Your task to perform on an android device: turn pop-ups on in chrome Image 0: 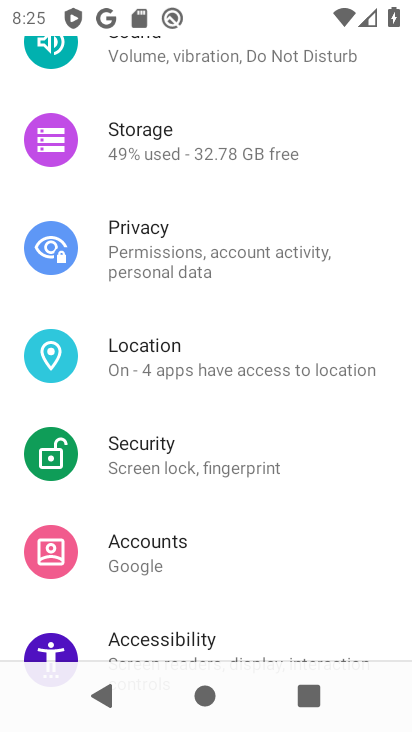
Step 0: press home button
Your task to perform on an android device: turn pop-ups on in chrome Image 1: 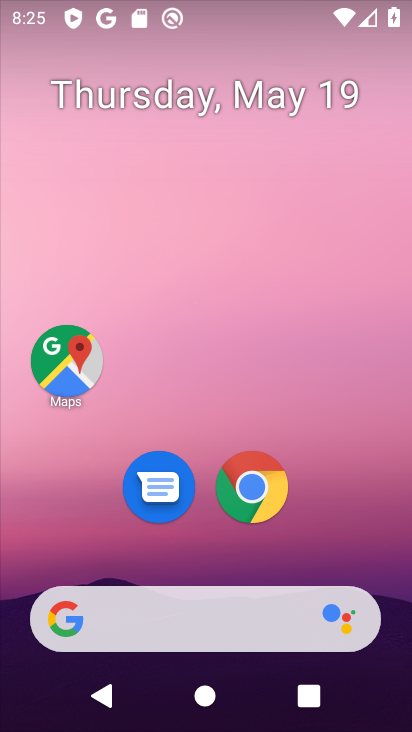
Step 1: click (246, 496)
Your task to perform on an android device: turn pop-ups on in chrome Image 2: 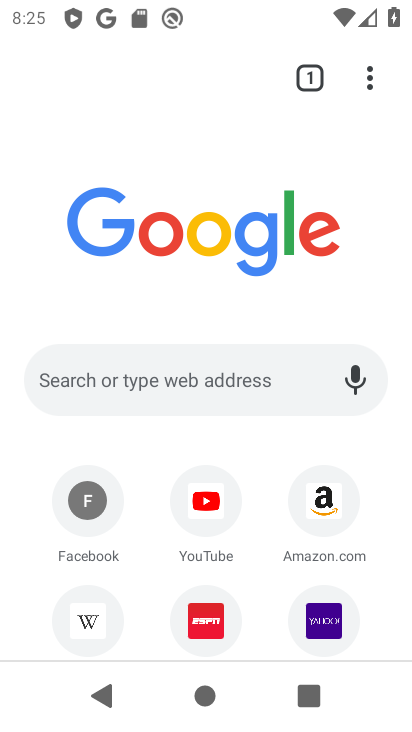
Step 2: drag from (367, 86) to (62, 551)
Your task to perform on an android device: turn pop-ups on in chrome Image 3: 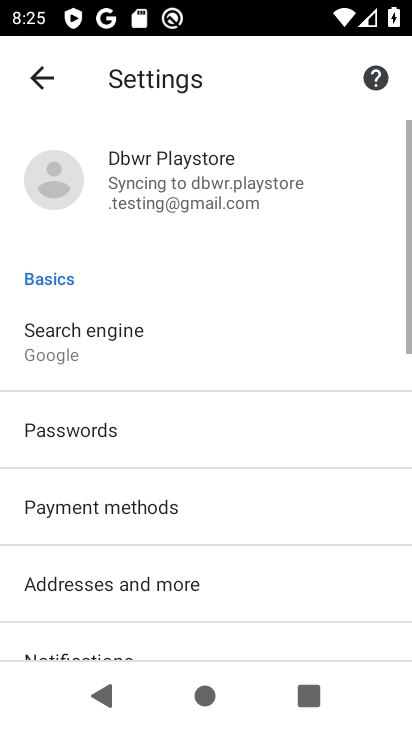
Step 3: drag from (249, 587) to (218, 158)
Your task to perform on an android device: turn pop-ups on in chrome Image 4: 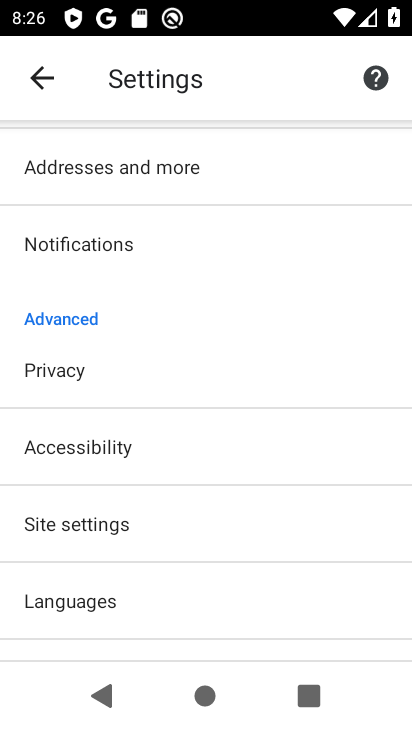
Step 4: click (96, 546)
Your task to perform on an android device: turn pop-ups on in chrome Image 5: 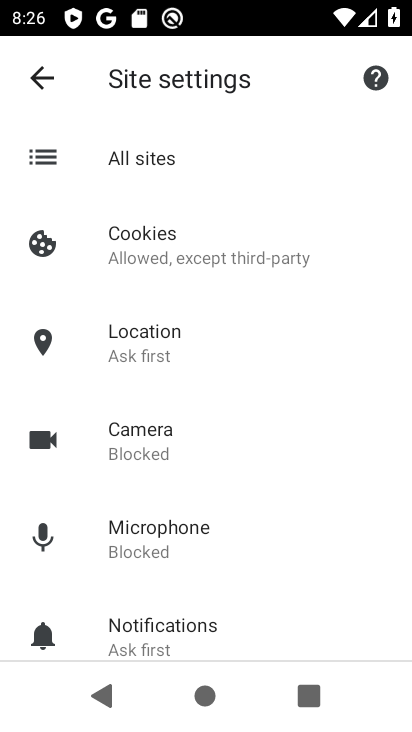
Step 5: drag from (159, 585) to (113, 222)
Your task to perform on an android device: turn pop-ups on in chrome Image 6: 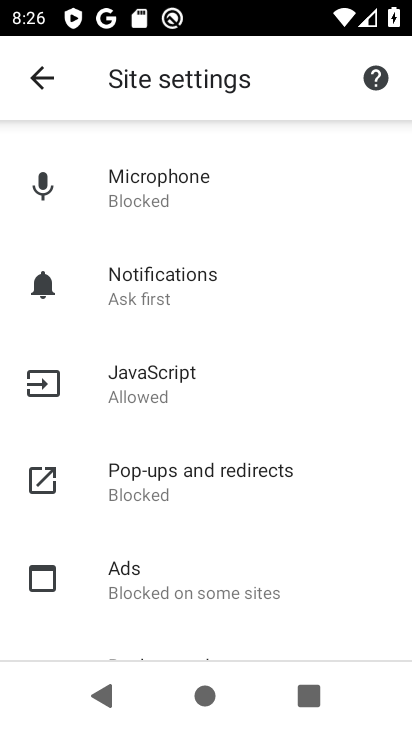
Step 6: click (123, 497)
Your task to perform on an android device: turn pop-ups on in chrome Image 7: 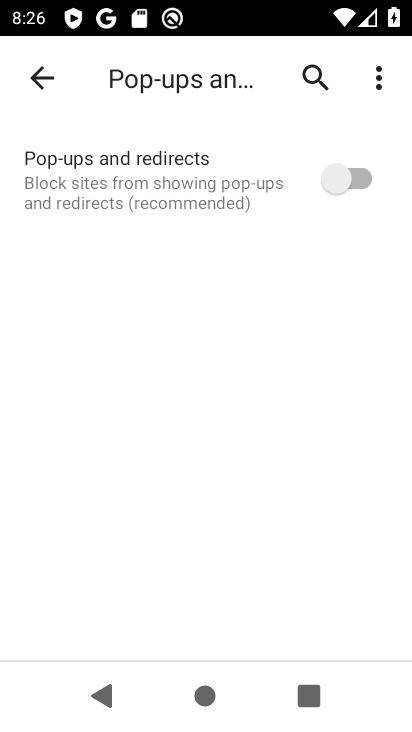
Step 7: click (347, 164)
Your task to perform on an android device: turn pop-ups on in chrome Image 8: 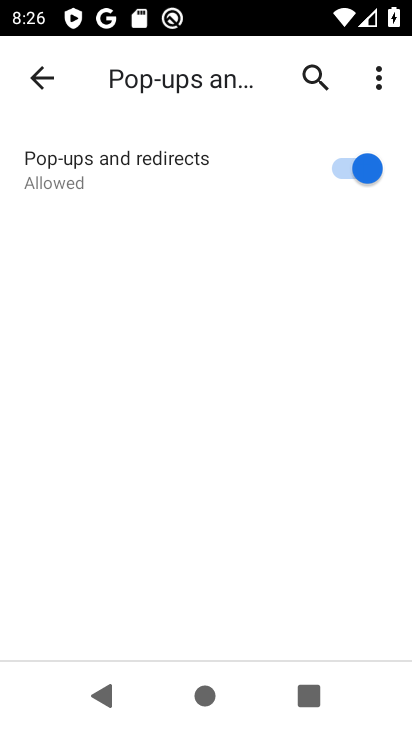
Step 8: task complete